Your task to perform on an android device: set the timer Image 0: 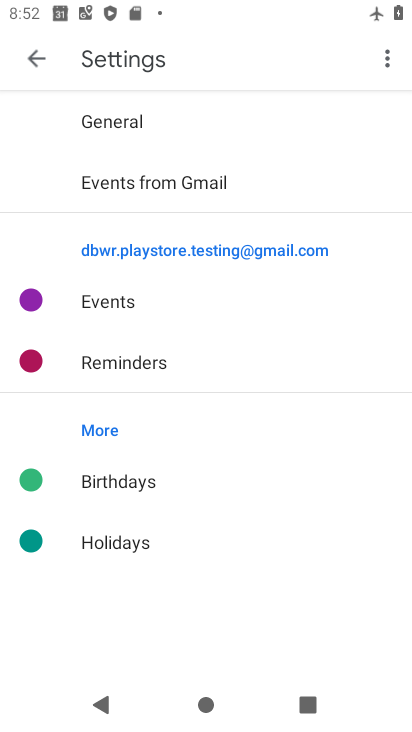
Step 0: press home button
Your task to perform on an android device: set the timer Image 1: 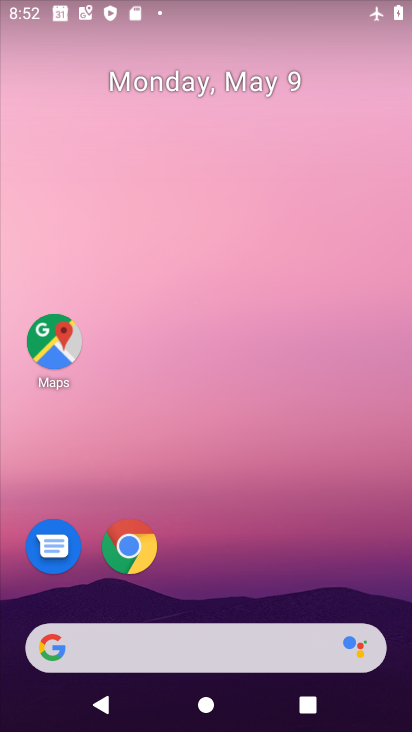
Step 1: drag from (257, 711) to (202, 76)
Your task to perform on an android device: set the timer Image 2: 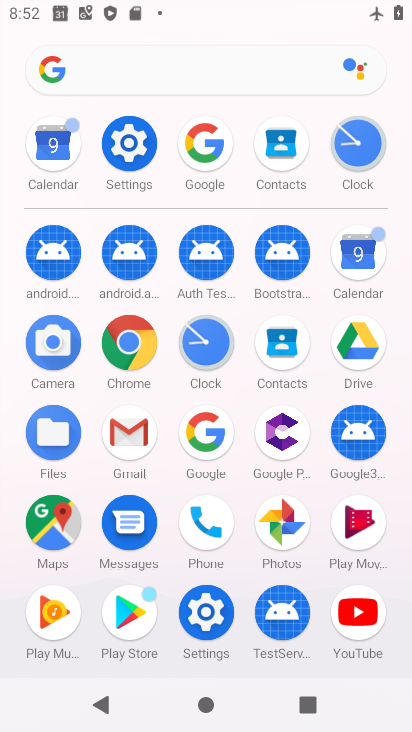
Step 2: click (197, 349)
Your task to perform on an android device: set the timer Image 3: 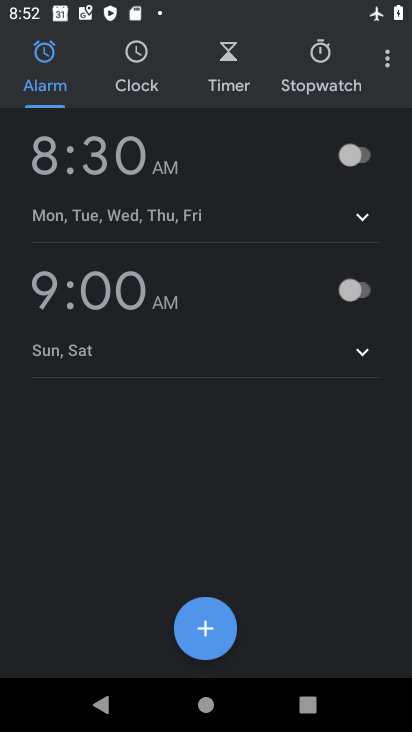
Step 3: click (229, 56)
Your task to perform on an android device: set the timer Image 4: 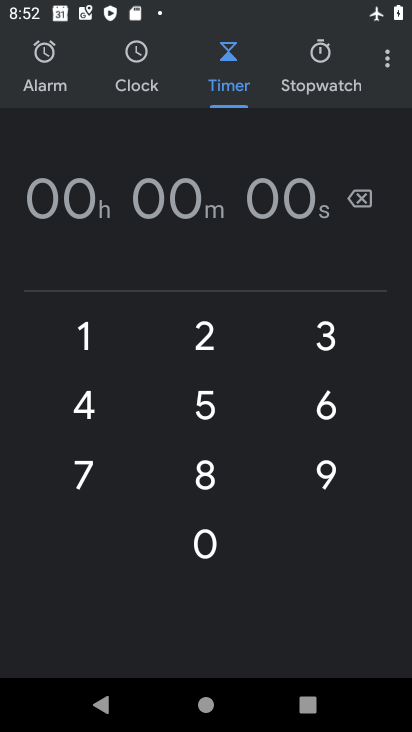
Step 4: click (196, 405)
Your task to perform on an android device: set the timer Image 5: 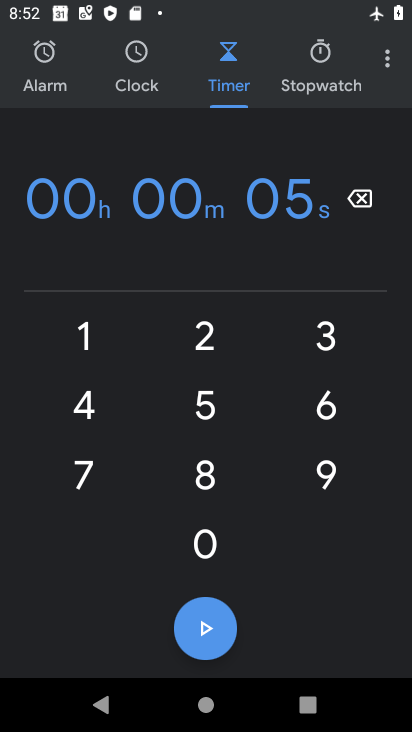
Step 5: click (328, 408)
Your task to perform on an android device: set the timer Image 6: 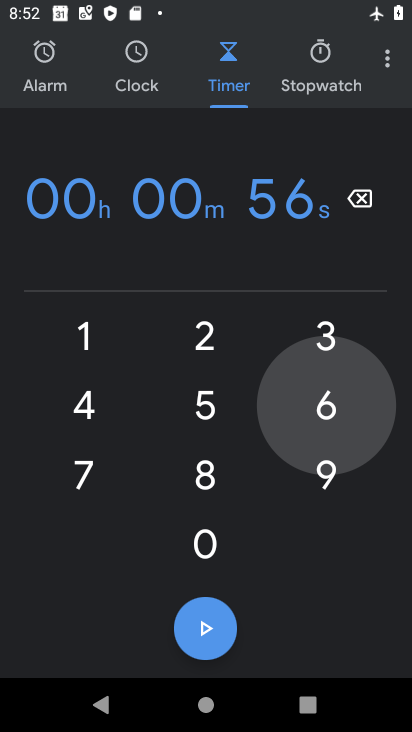
Step 6: click (327, 486)
Your task to perform on an android device: set the timer Image 7: 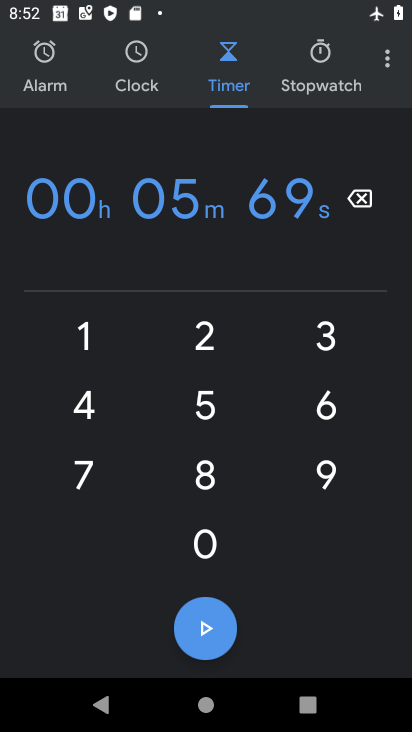
Step 7: click (206, 491)
Your task to perform on an android device: set the timer Image 8: 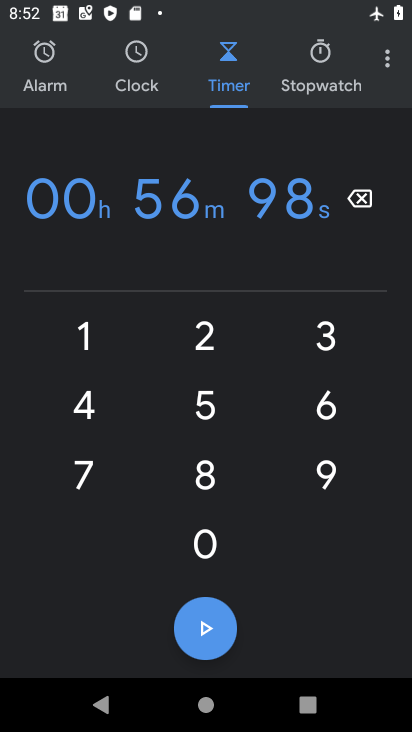
Step 8: task complete